Your task to perform on an android device: change the clock display to digital Image 0: 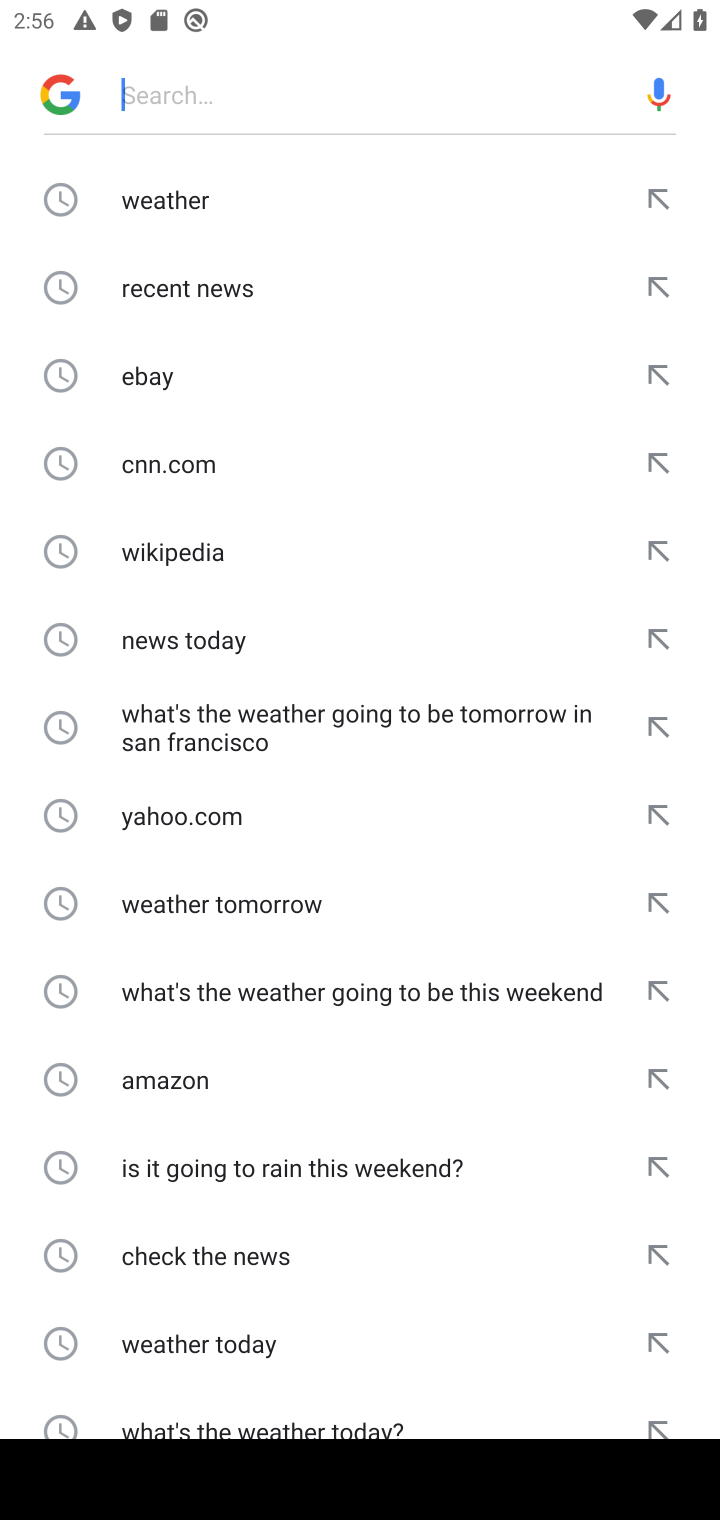
Step 0: press home button
Your task to perform on an android device: change the clock display to digital Image 1: 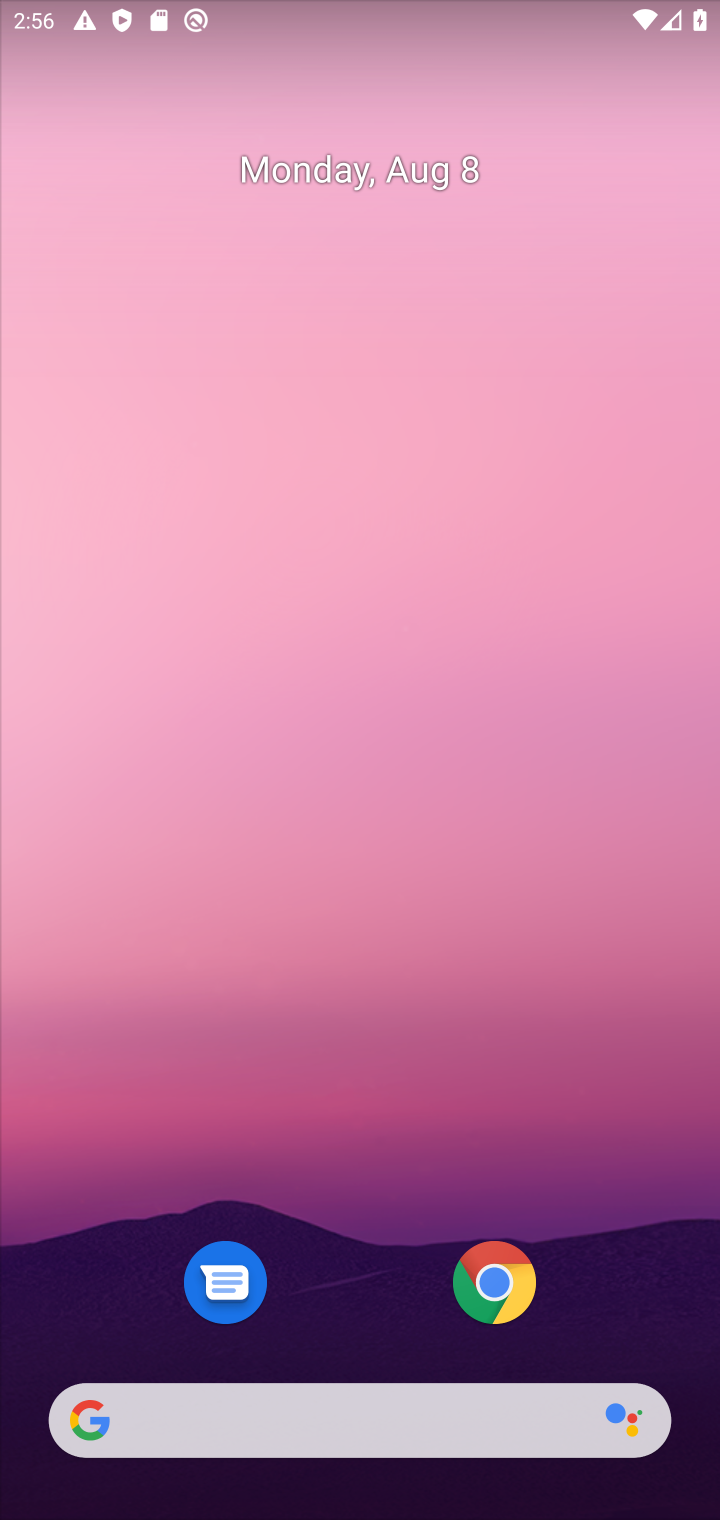
Step 1: drag from (350, 1225) to (457, 214)
Your task to perform on an android device: change the clock display to digital Image 2: 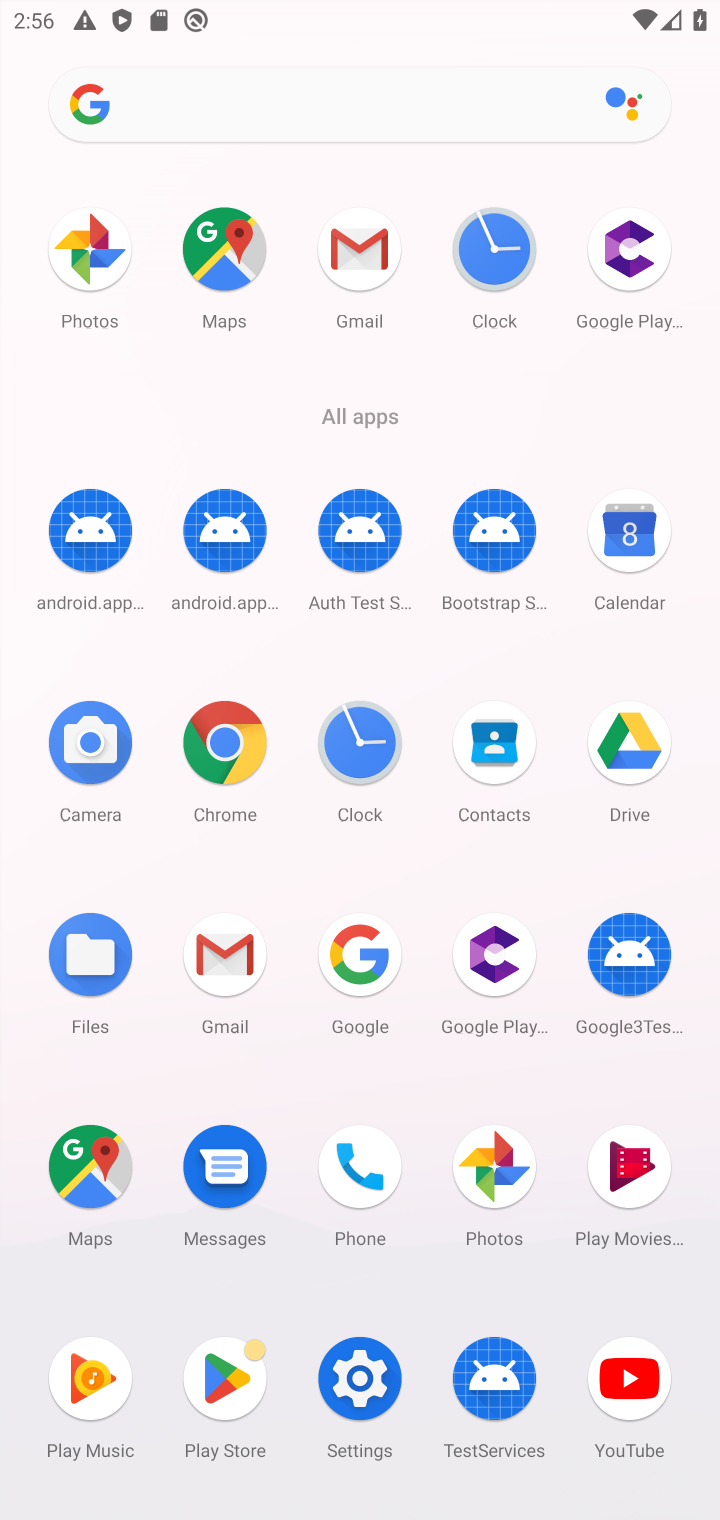
Step 2: click (365, 759)
Your task to perform on an android device: change the clock display to digital Image 3: 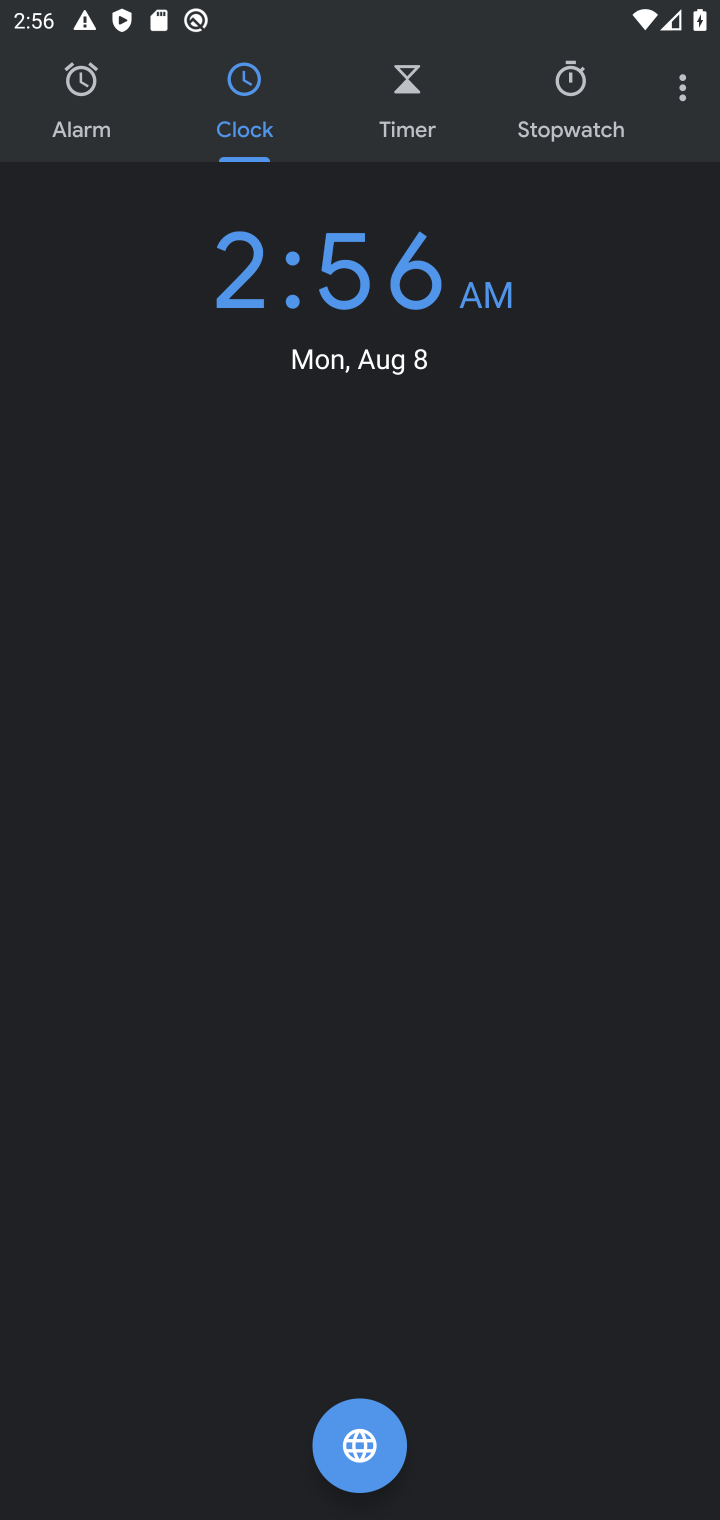
Step 3: click (680, 81)
Your task to perform on an android device: change the clock display to digital Image 4: 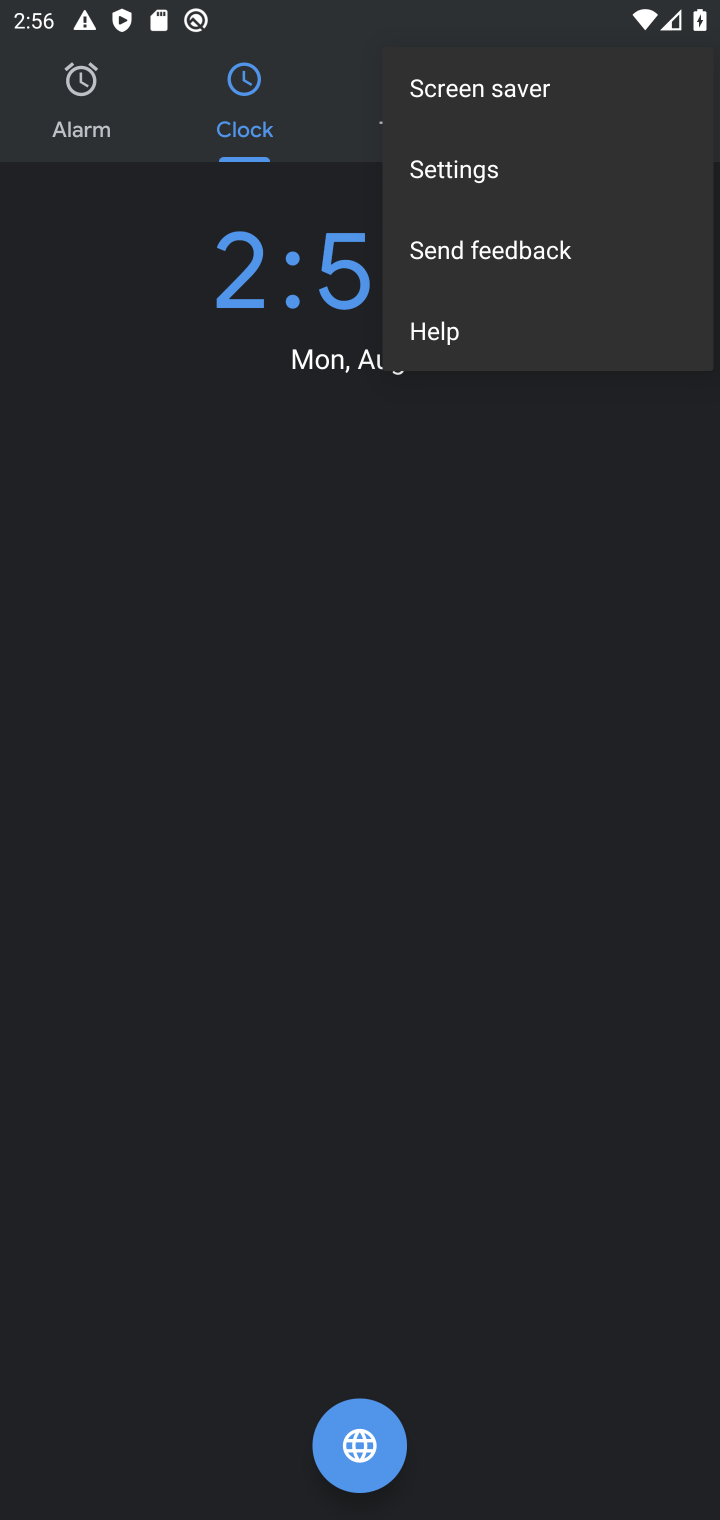
Step 4: click (480, 179)
Your task to perform on an android device: change the clock display to digital Image 5: 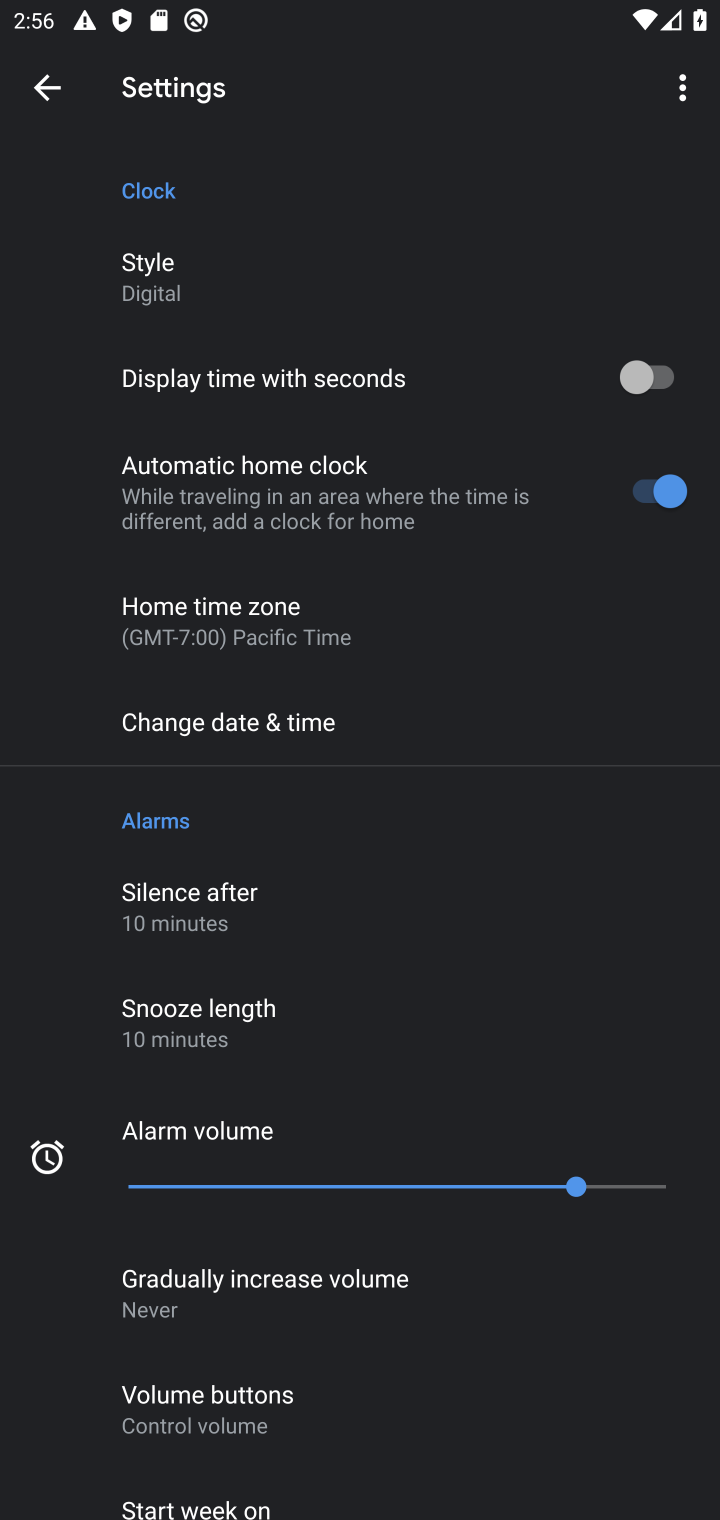
Step 5: task complete